Your task to perform on an android device: Go to Google Image 0: 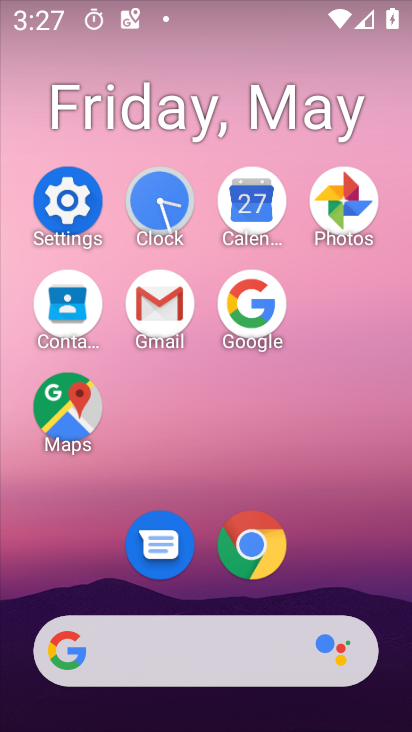
Step 0: click (251, 306)
Your task to perform on an android device: Go to Google Image 1: 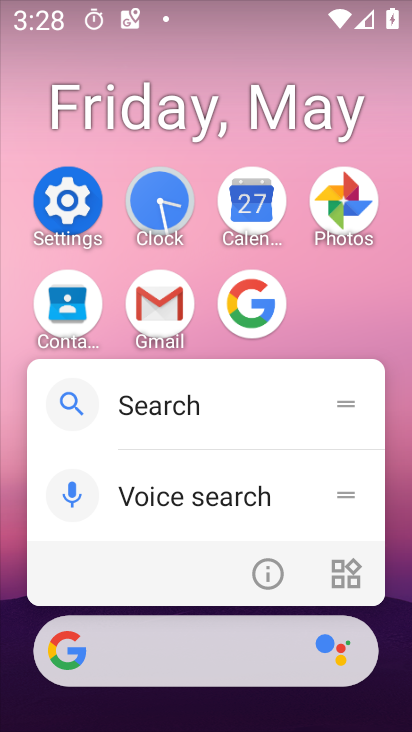
Step 1: click (212, 298)
Your task to perform on an android device: Go to Google Image 2: 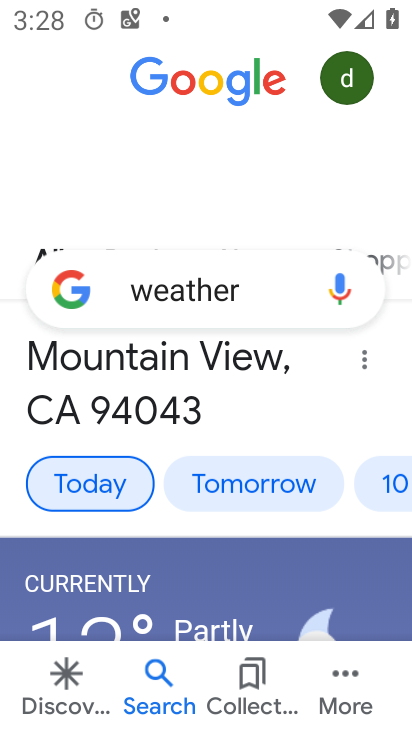
Step 2: task complete